Your task to perform on an android device: Search for Mexican restaurants on Maps Image 0: 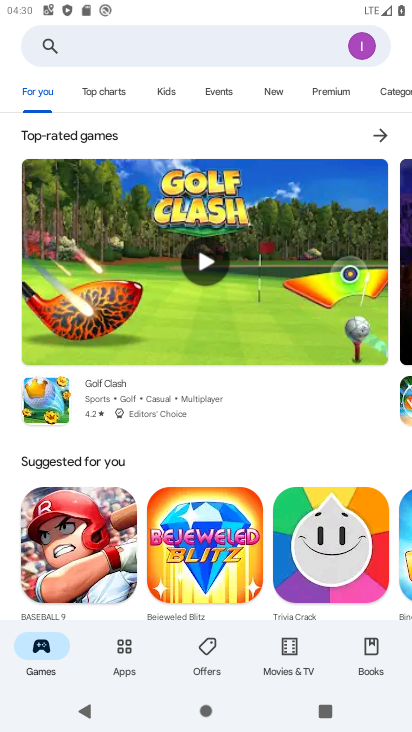
Step 0: press home button
Your task to perform on an android device: Search for Mexican restaurants on Maps Image 1: 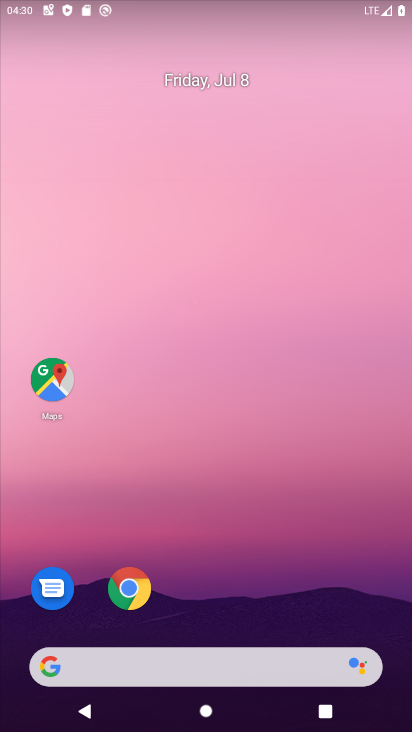
Step 1: click (42, 388)
Your task to perform on an android device: Search for Mexican restaurants on Maps Image 2: 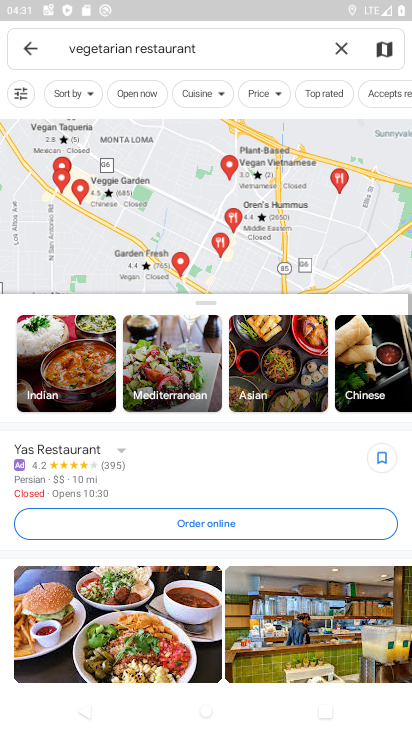
Step 2: click (340, 49)
Your task to perform on an android device: Search for Mexican restaurants on Maps Image 3: 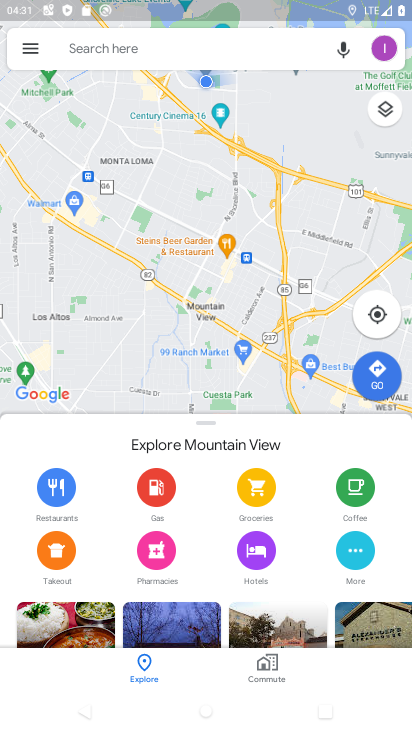
Step 3: click (243, 49)
Your task to perform on an android device: Search for Mexican restaurants on Maps Image 4: 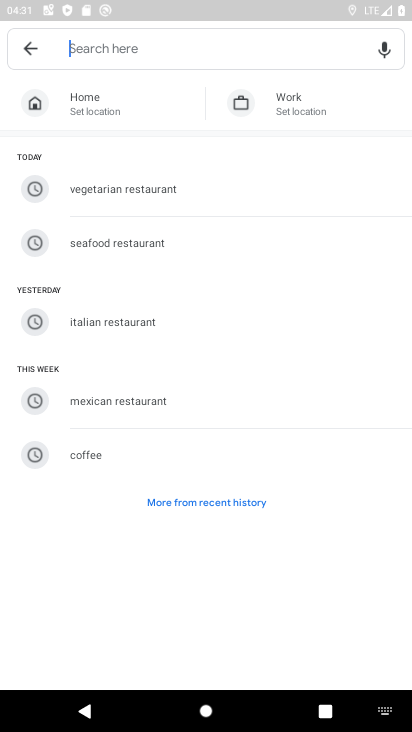
Step 4: click (108, 398)
Your task to perform on an android device: Search for Mexican restaurants on Maps Image 5: 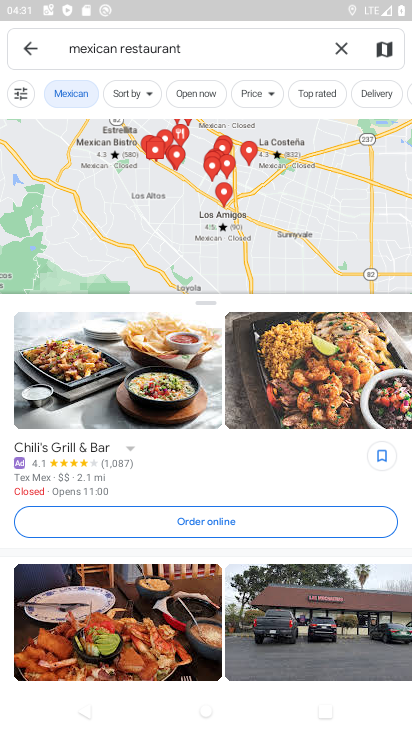
Step 5: task complete